Your task to perform on an android device: Open the web browser Image 0: 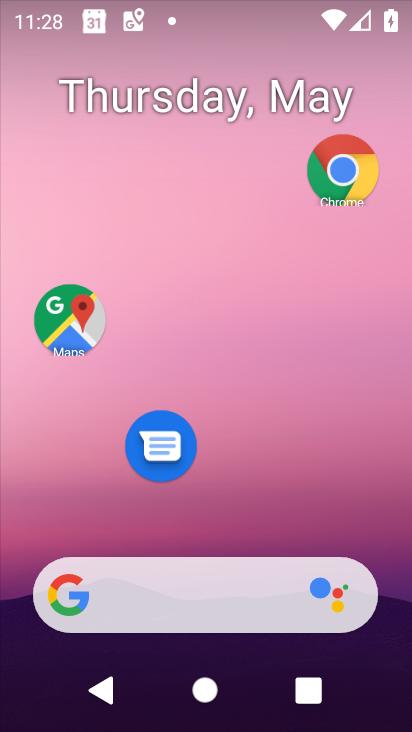
Step 0: drag from (212, 598) to (302, 10)
Your task to perform on an android device: Open the web browser Image 1: 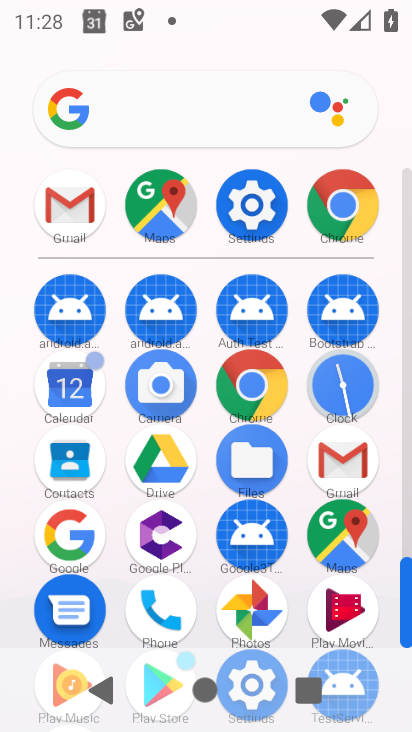
Step 1: click (262, 393)
Your task to perform on an android device: Open the web browser Image 2: 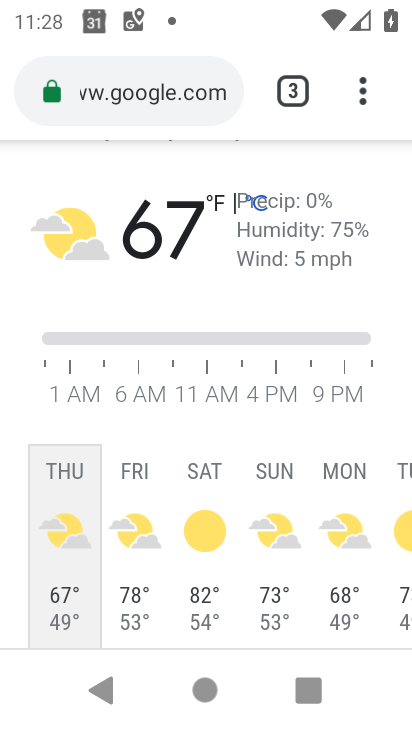
Step 2: task complete